Your task to perform on an android device: toggle airplane mode Image 0: 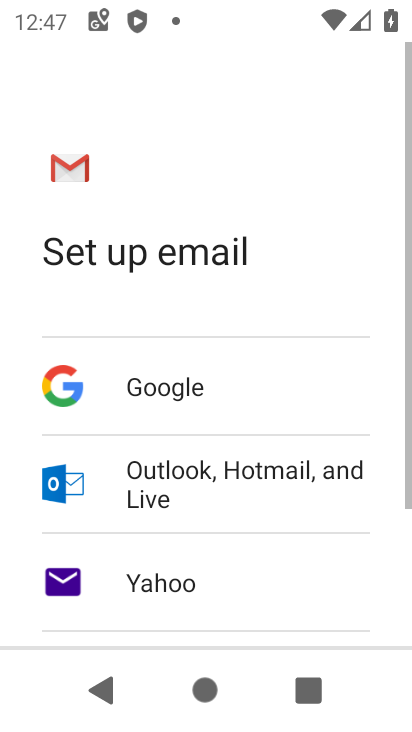
Step 0: press home button
Your task to perform on an android device: toggle airplane mode Image 1: 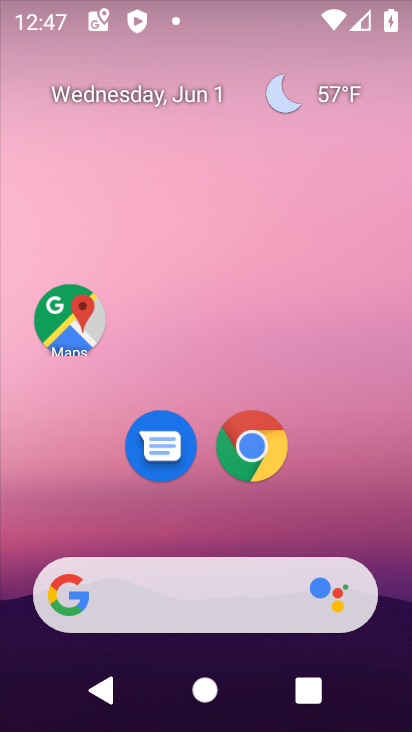
Step 1: drag from (194, 498) to (201, 135)
Your task to perform on an android device: toggle airplane mode Image 2: 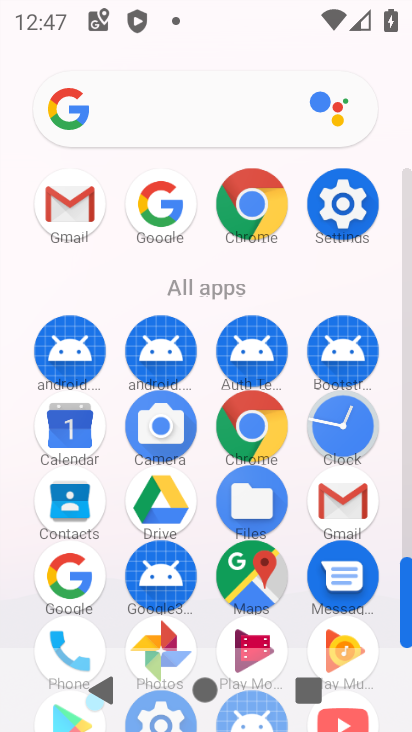
Step 2: drag from (204, 287) to (209, 0)
Your task to perform on an android device: toggle airplane mode Image 3: 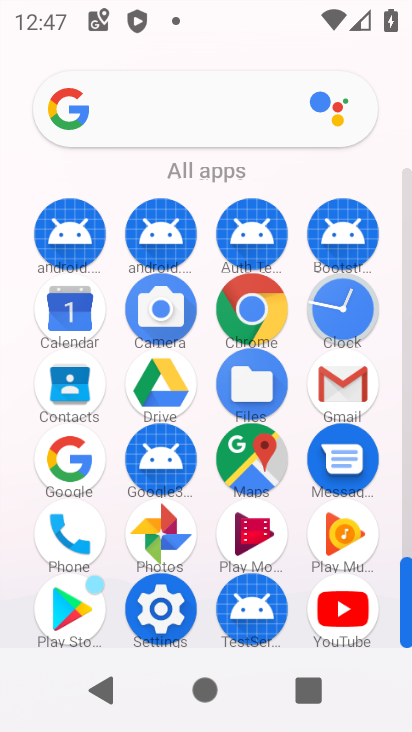
Step 3: click (171, 607)
Your task to perform on an android device: toggle airplane mode Image 4: 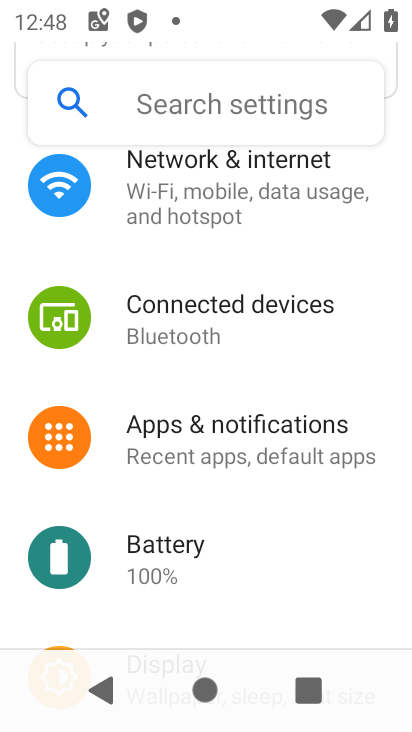
Step 4: drag from (196, 263) to (213, 495)
Your task to perform on an android device: toggle airplane mode Image 5: 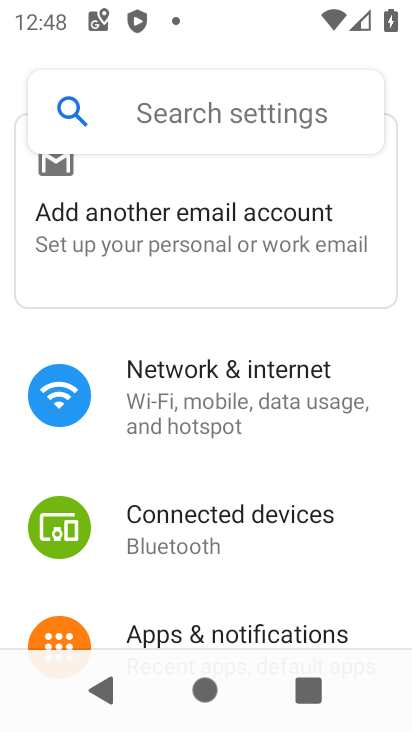
Step 5: click (214, 419)
Your task to perform on an android device: toggle airplane mode Image 6: 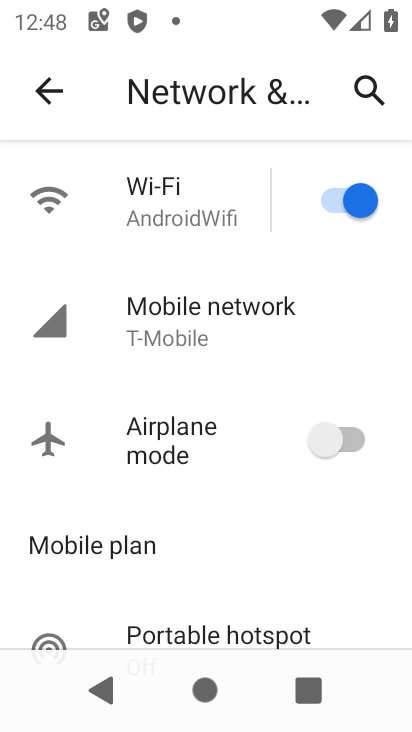
Step 6: click (332, 442)
Your task to perform on an android device: toggle airplane mode Image 7: 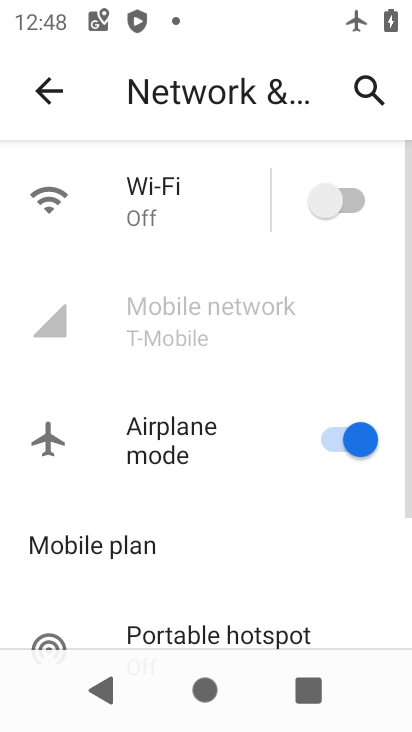
Step 7: task complete